Your task to perform on an android device: turn off priority inbox in the gmail app Image 0: 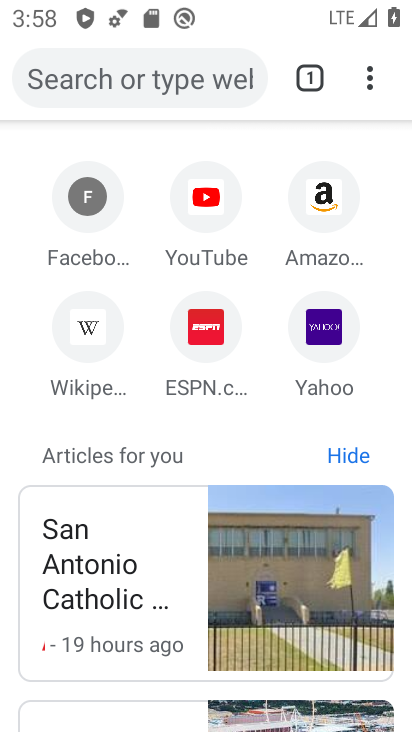
Step 0: press back button
Your task to perform on an android device: turn off priority inbox in the gmail app Image 1: 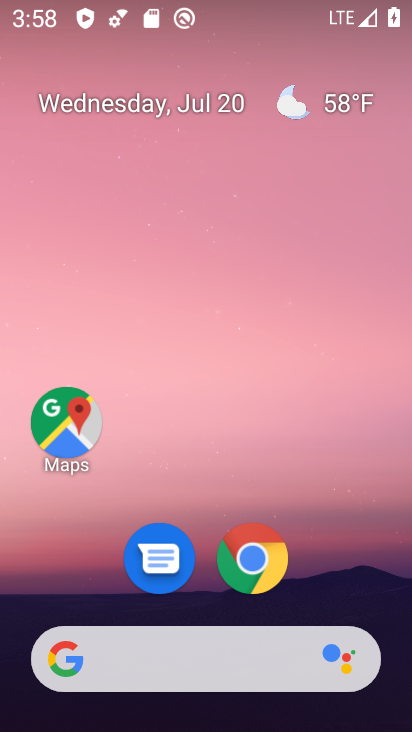
Step 1: drag from (98, 604) to (228, 21)
Your task to perform on an android device: turn off priority inbox in the gmail app Image 2: 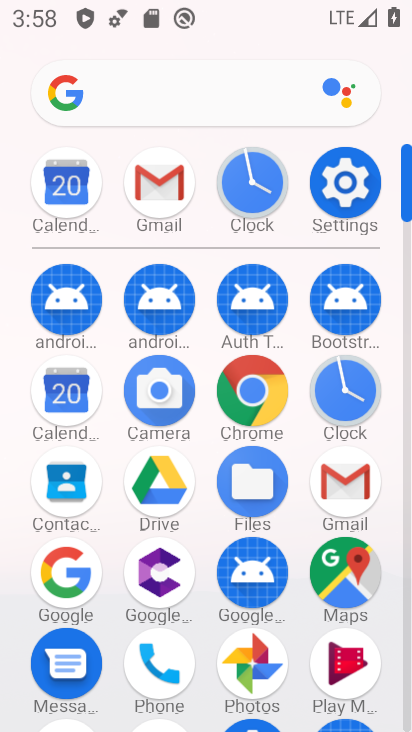
Step 2: click (164, 183)
Your task to perform on an android device: turn off priority inbox in the gmail app Image 3: 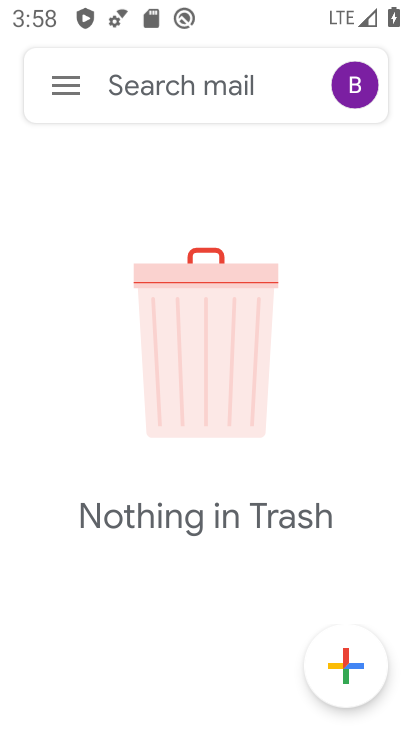
Step 3: click (67, 97)
Your task to perform on an android device: turn off priority inbox in the gmail app Image 4: 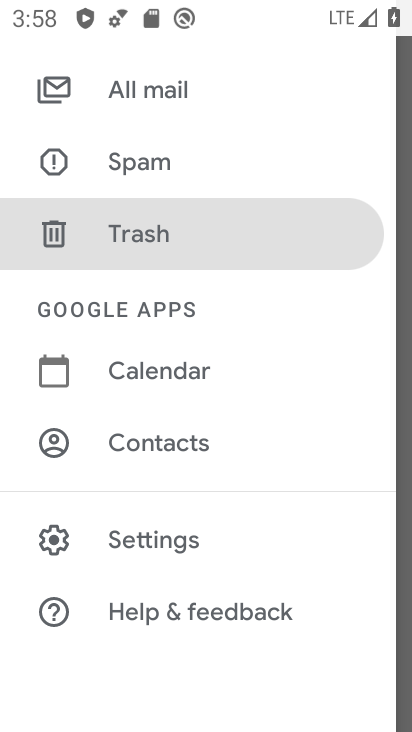
Step 4: click (162, 535)
Your task to perform on an android device: turn off priority inbox in the gmail app Image 5: 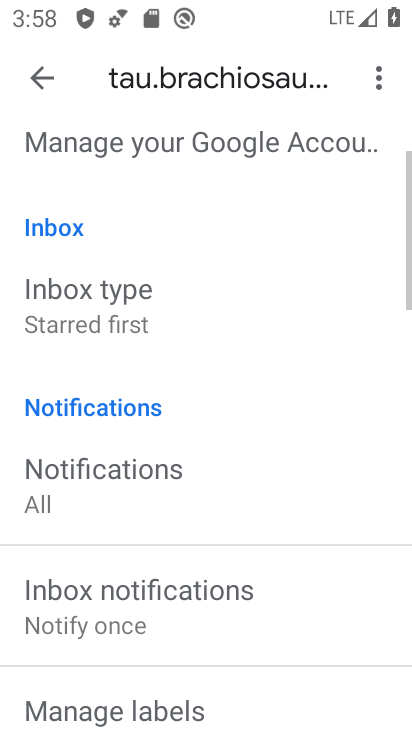
Step 5: click (89, 307)
Your task to perform on an android device: turn off priority inbox in the gmail app Image 6: 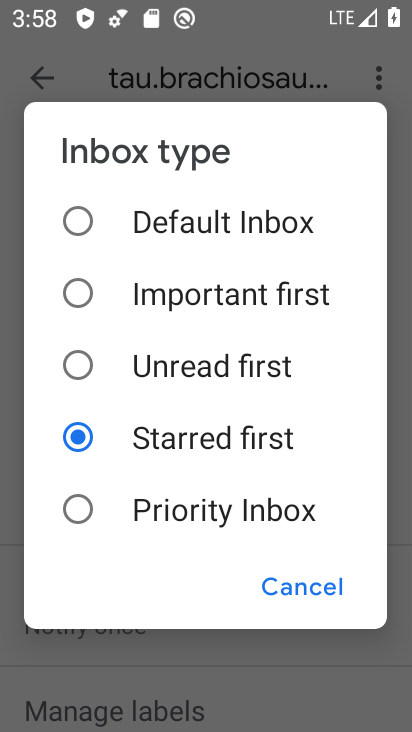
Step 6: task complete